Your task to perform on an android device: Open battery settings Image 0: 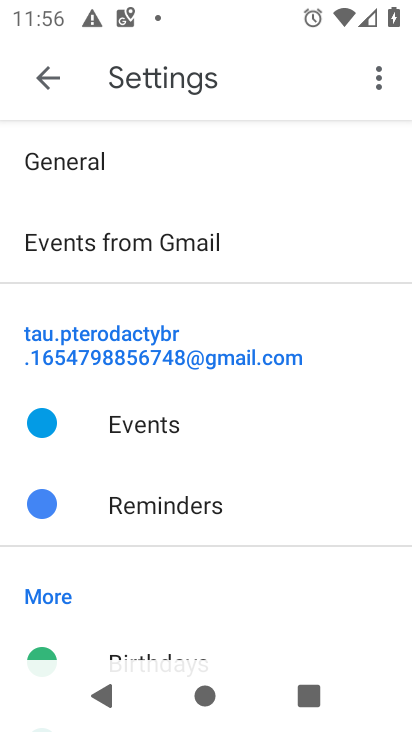
Step 0: press back button
Your task to perform on an android device: Open battery settings Image 1: 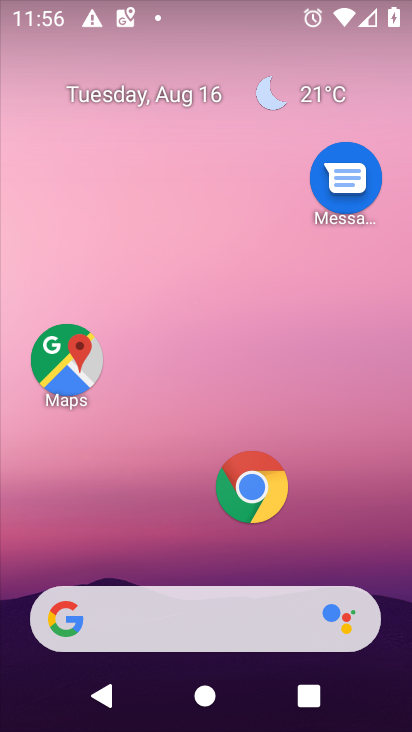
Step 1: drag from (163, 569) to (259, 7)
Your task to perform on an android device: Open battery settings Image 2: 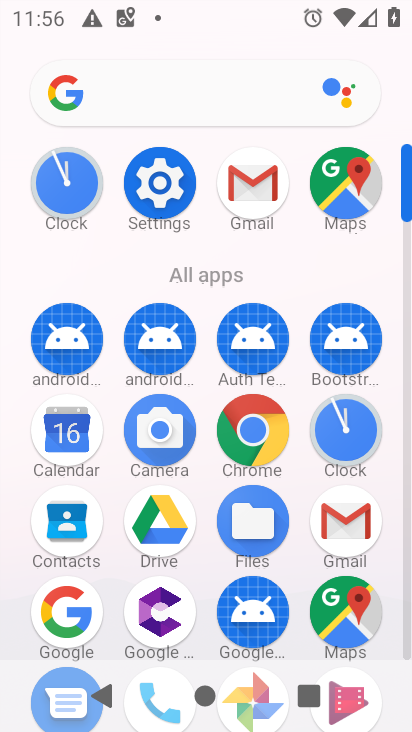
Step 2: click (176, 170)
Your task to perform on an android device: Open battery settings Image 3: 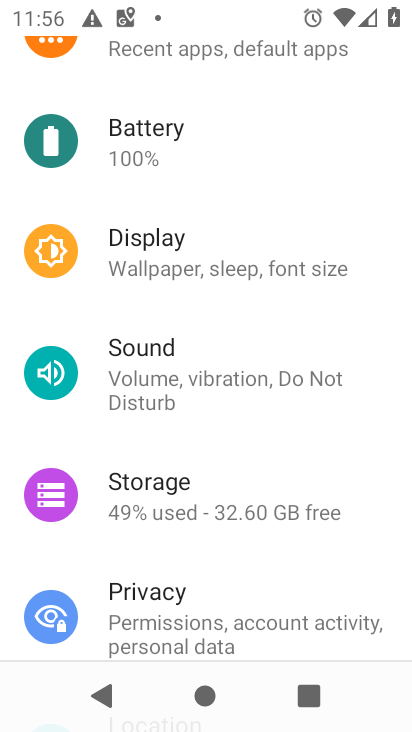
Step 3: click (182, 130)
Your task to perform on an android device: Open battery settings Image 4: 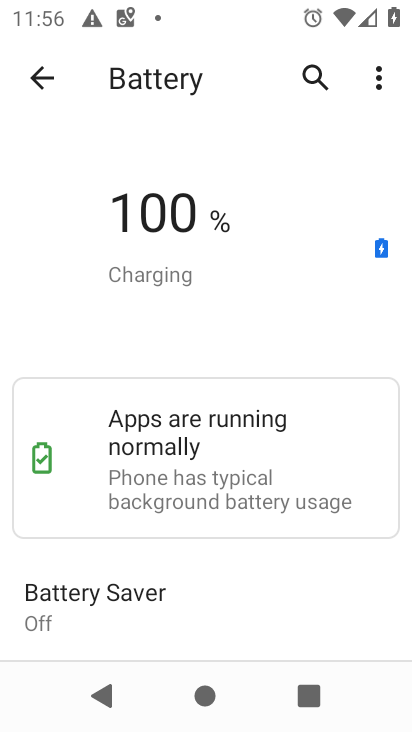
Step 4: task complete